Your task to perform on an android device: Clear all items from cart on ebay. Add alienware area 51 to the cart on ebay Image 0: 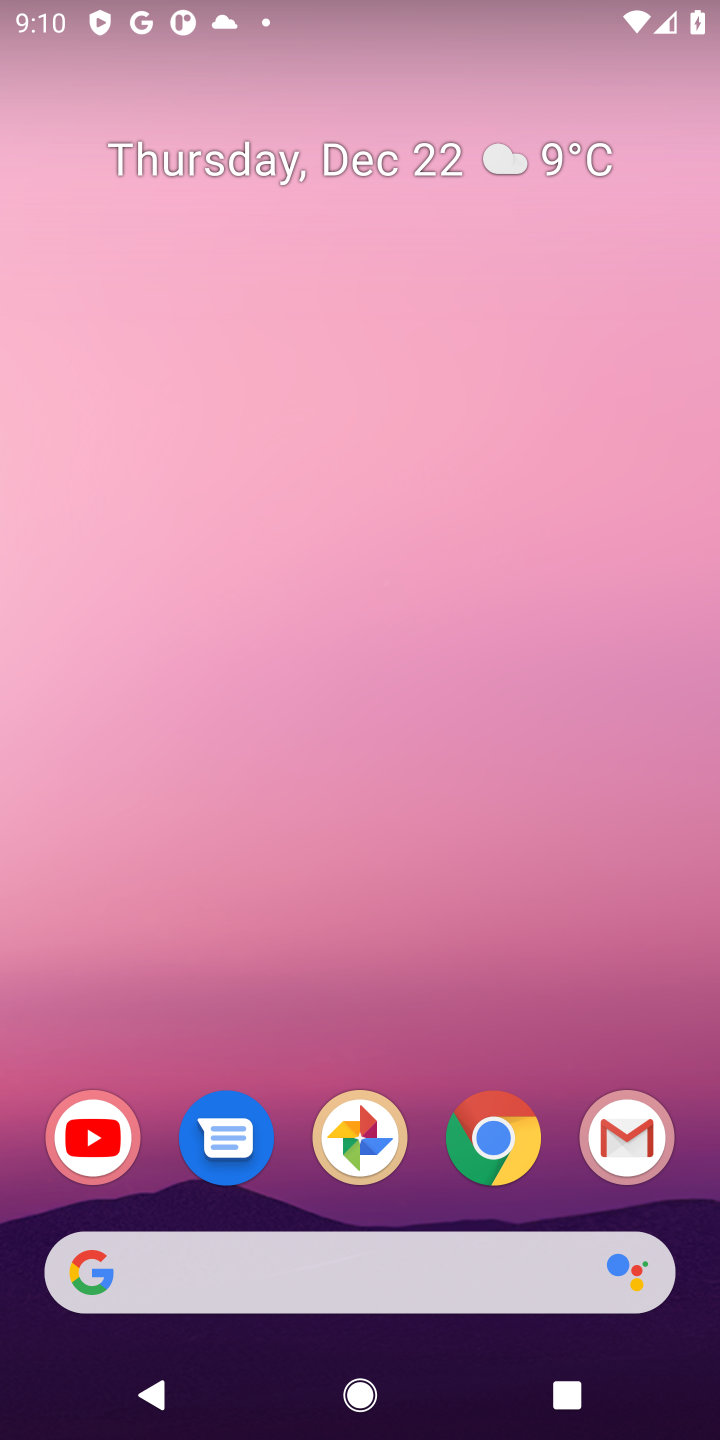
Step 0: click (499, 1150)
Your task to perform on an android device: Clear all items from cart on ebay. Add alienware area 51 to the cart on ebay Image 1: 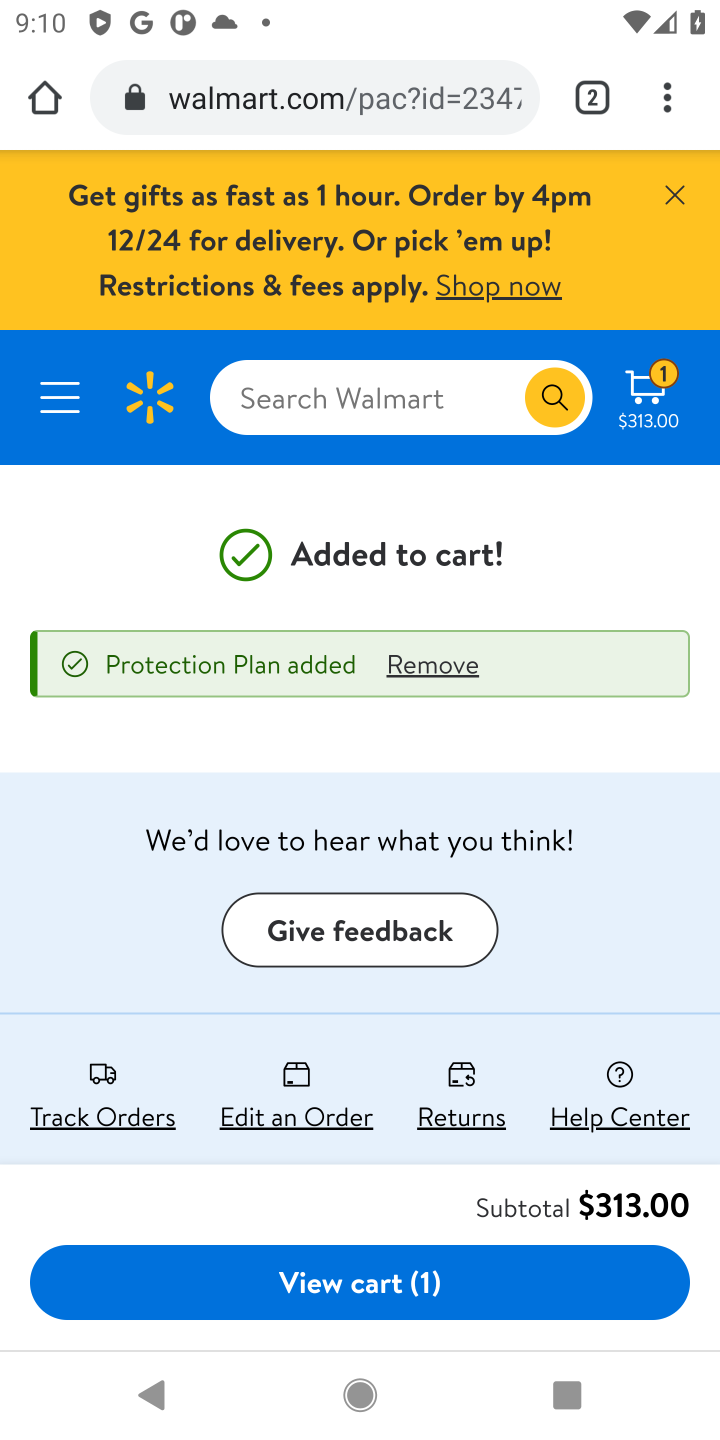
Step 1: click (247, 118)
Your task to perform on an android device: Clear all items from cart on ebay. Add alienware area 51 to the cart on ebay Image 2: 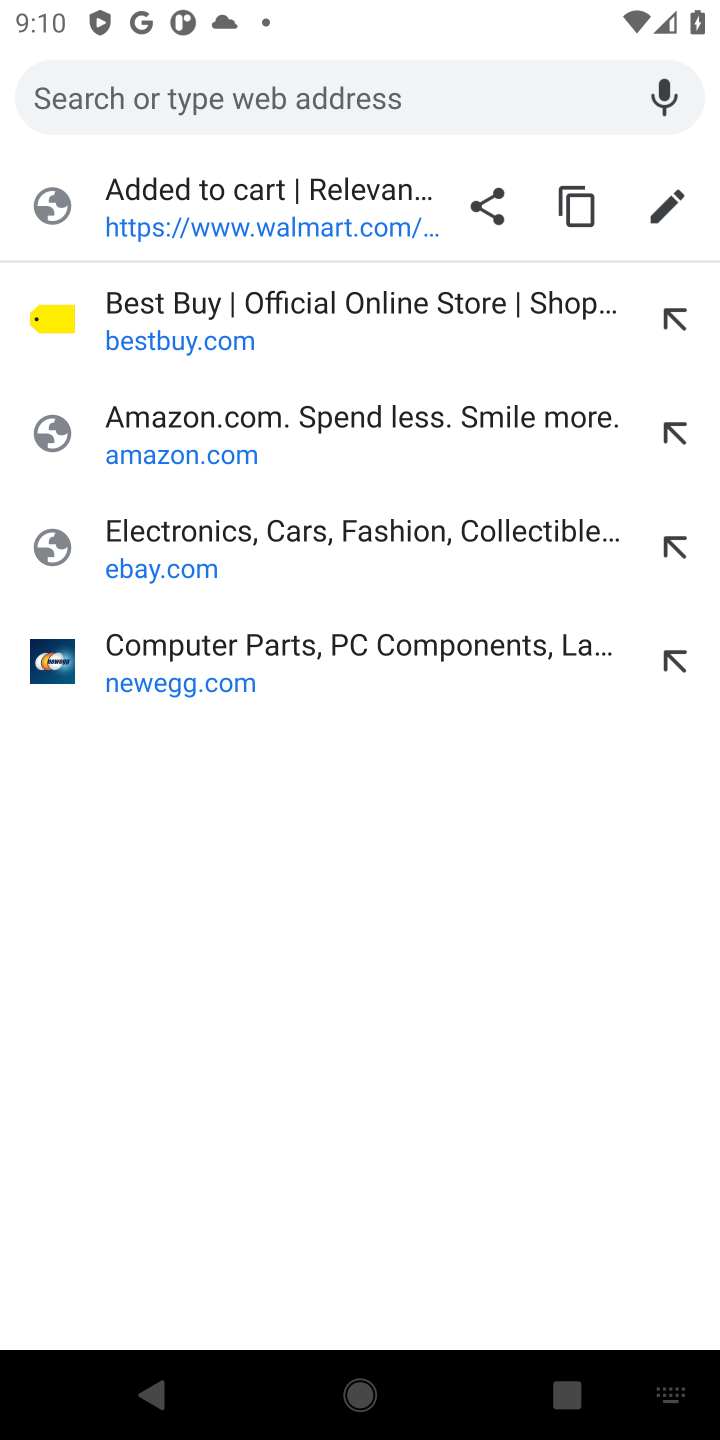
Step 2: type "ebay"
Your task to perform on an android device: Clear all items from cart on ebay. Add alienware area 51 to the cart on ebay Image 3: 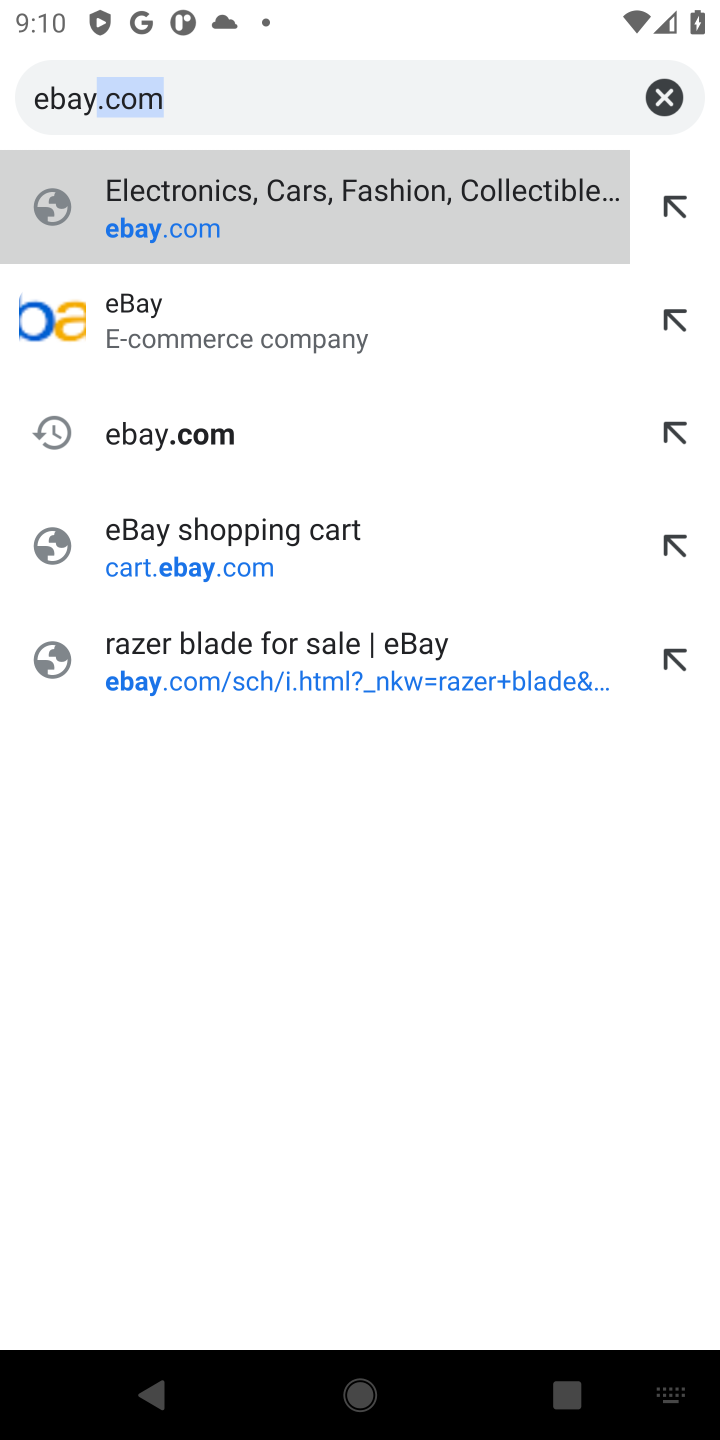
Step 3: click (293, 241)
Your task to perform on an android device: Clear all items from cart on ebay. Add alienware area 51 to the cart on ebay Image 4: 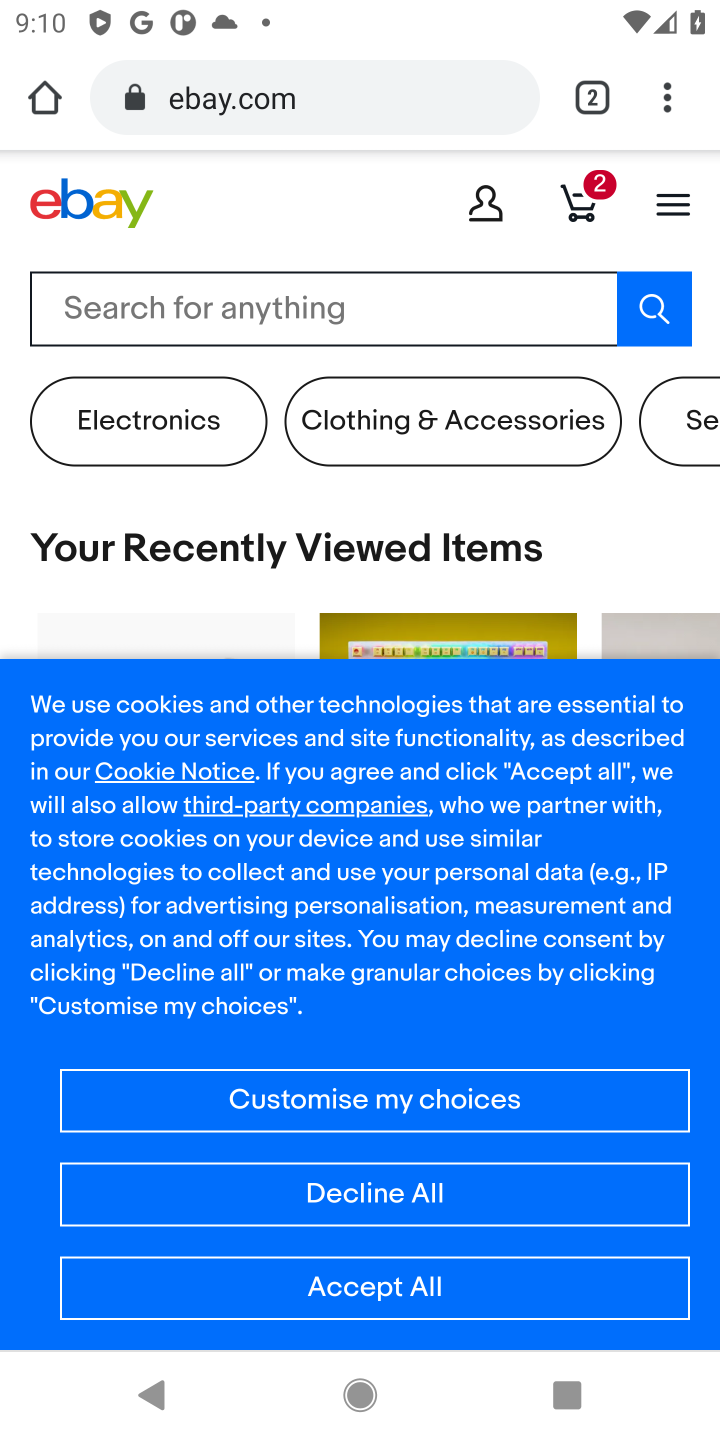
Step 4: click (406, 1312)
Your task to perform on an android device: Clear all items from cart on ebay. Add alienware area 51 to the cart on ebay Image 5: 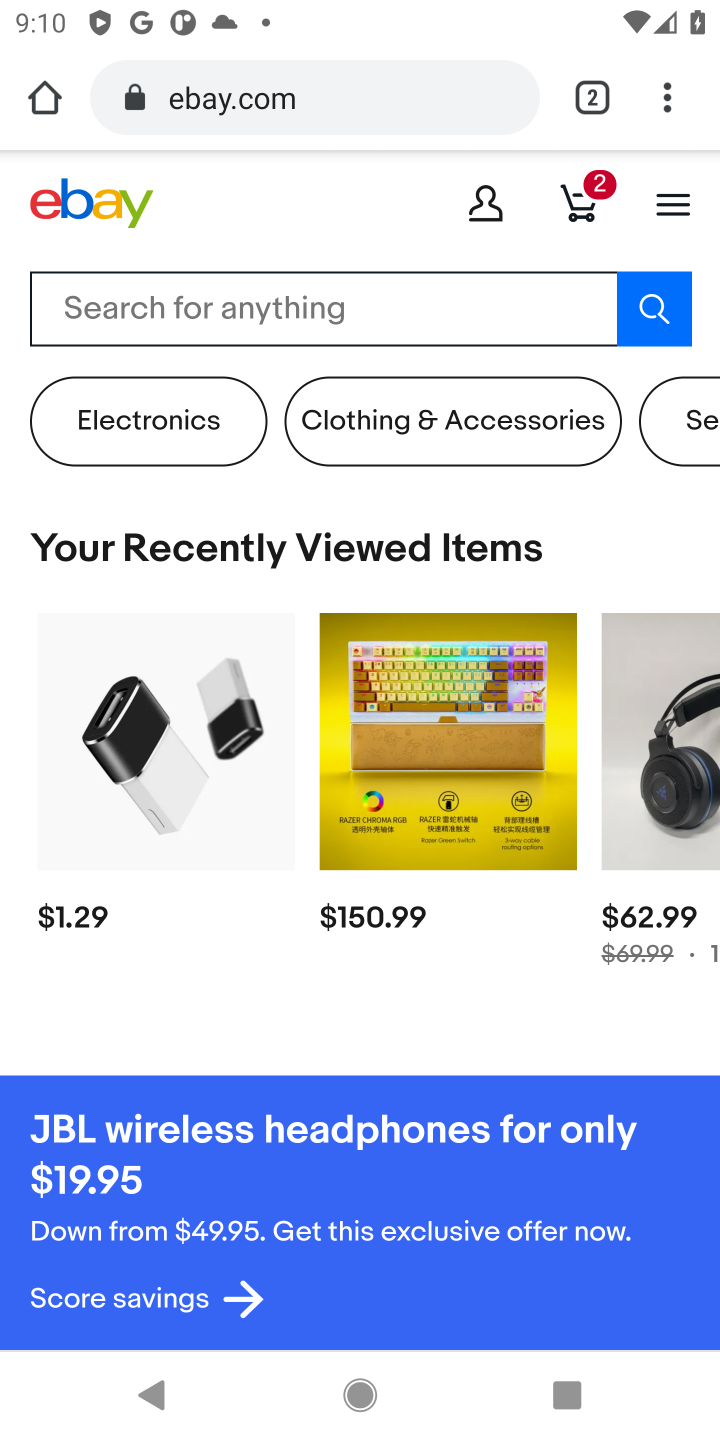
Step 5: click (292, 333)
Your task to perform on an android device: Clear all items from cart on ebay. Add alienware area 51 to the cart on ebay Image 6: 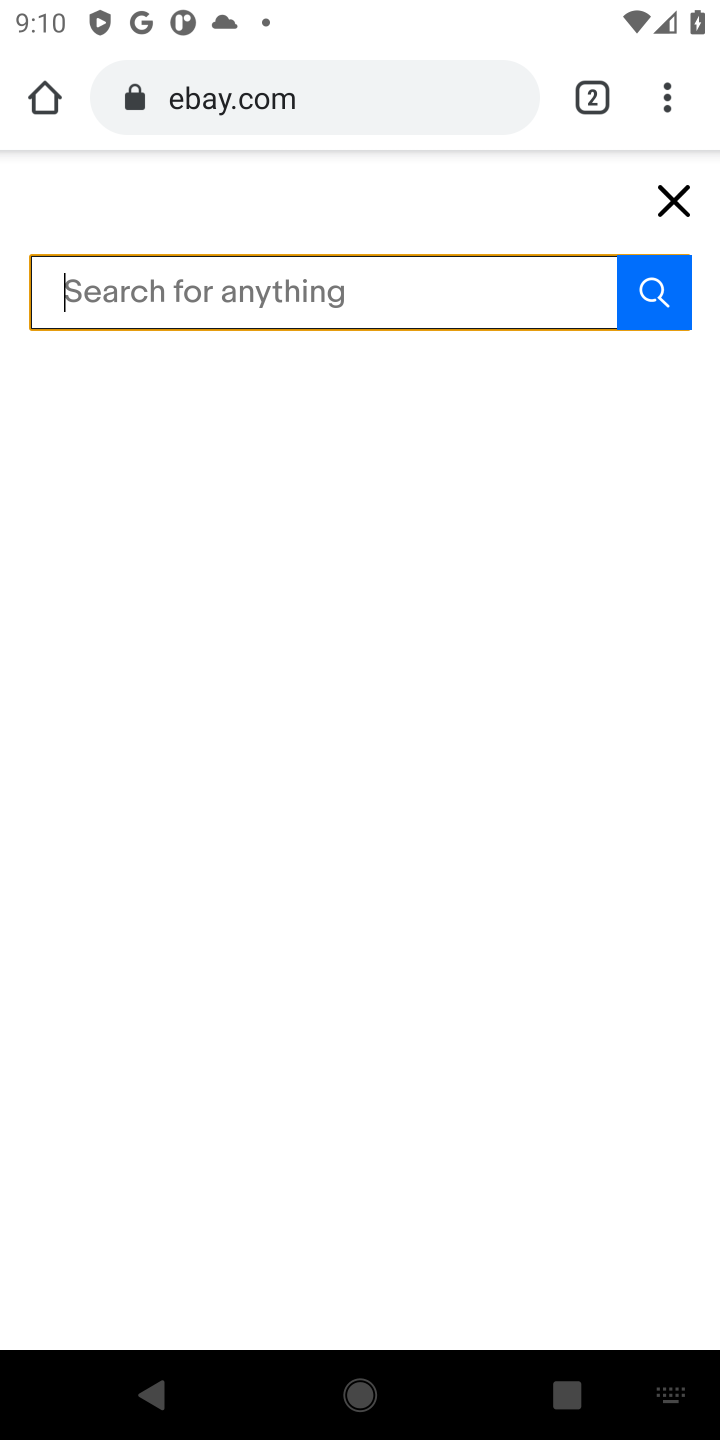
Step 6: type "alienware area 51"
Your task to perform on an android device: Clear all items from cart on ebay. Add alienware area 51 to the cart on ebay Image 7: 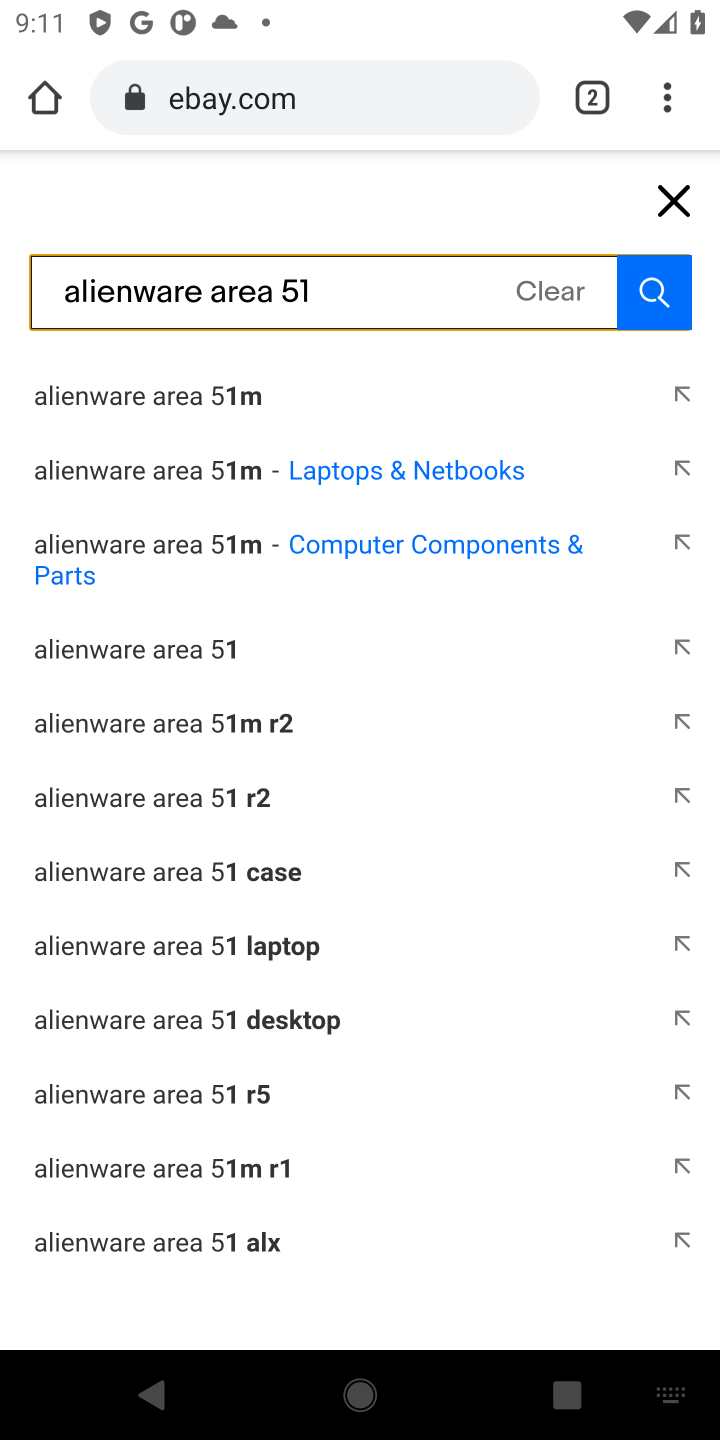
Step 7: click (651, 291)
Your task to perform on an android device: Clear all items from cart on ebay. Add alienware area 51 to the cart on ebay Image 8: 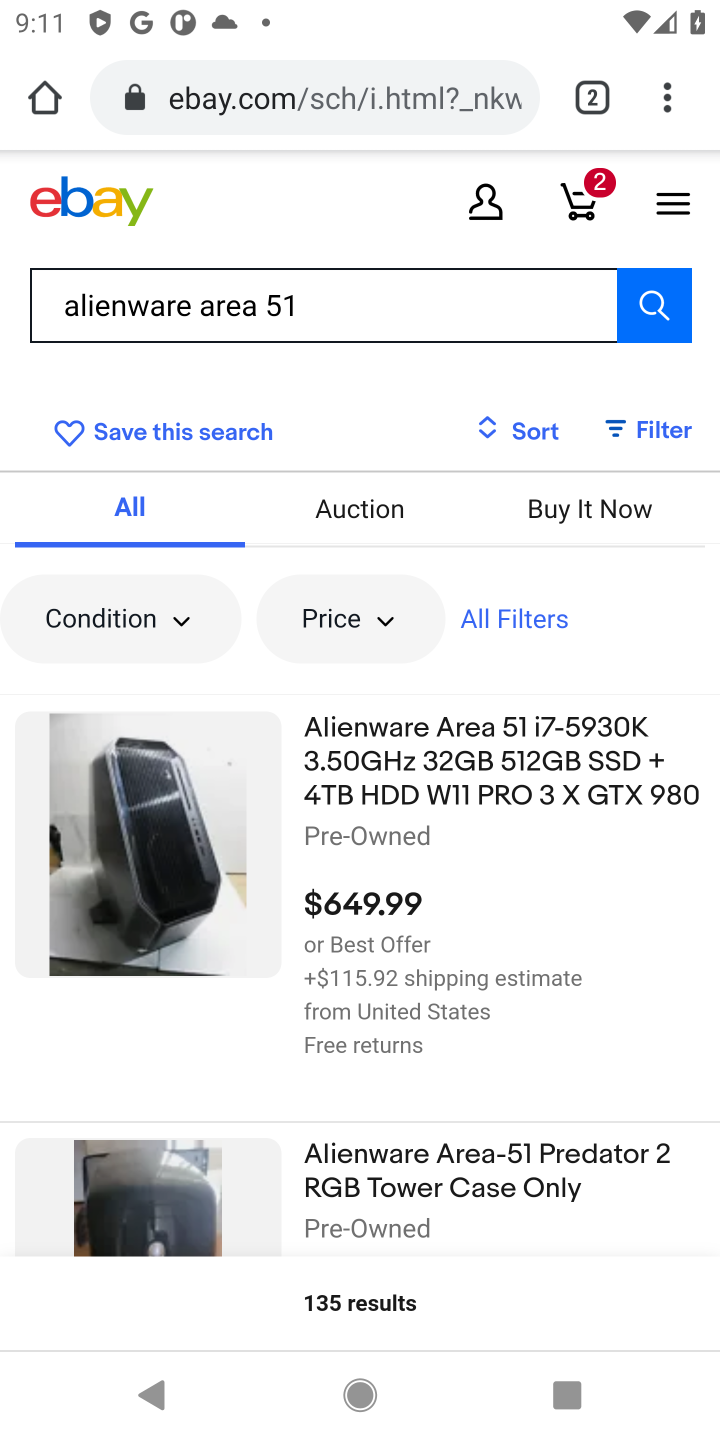
Step 8: click (447, 776)
Your task to perform on an android device: Clear all items from cart on ebay. Add alienware area 51 to the cart on ebay Image 9: 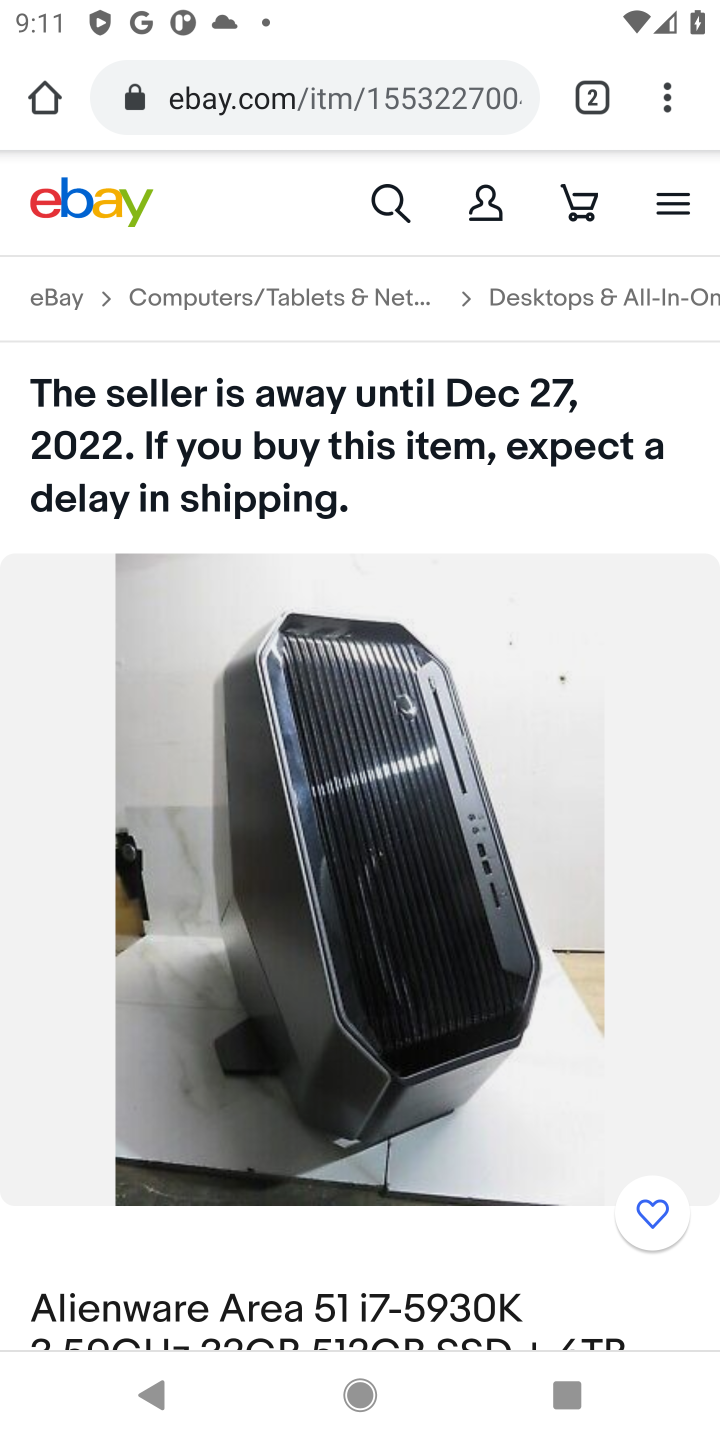
Step 9: drag from (564, 1112) to (582, 299)
Your task to perform on an android device: Clear all items from cart on ebay. Add alienware area 51 to the cart on ebay Image 10: 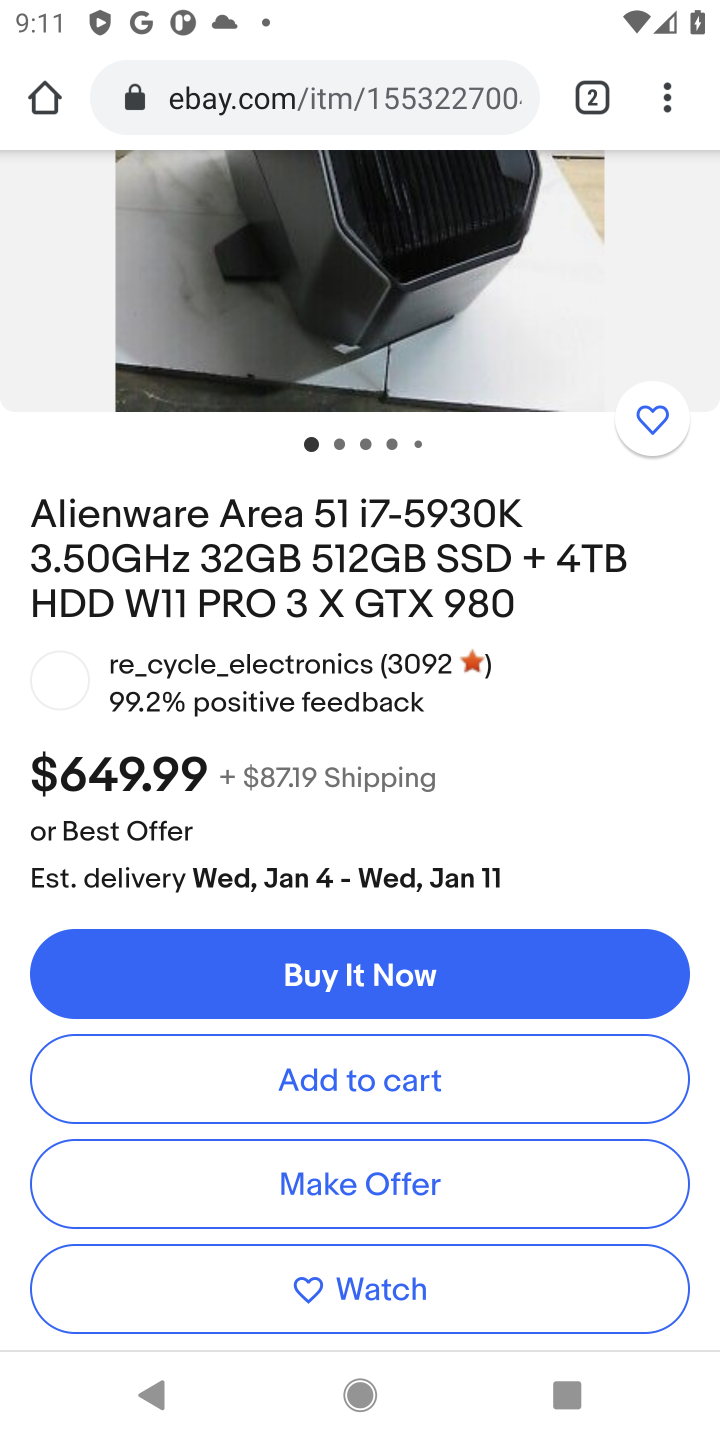
Step 10: drag from (591, 588) to (579, 1436)
Your task to perform on an android device: Clear all items from cart on ebay. Add alienware area 51 to the cart on ebay Image 11: 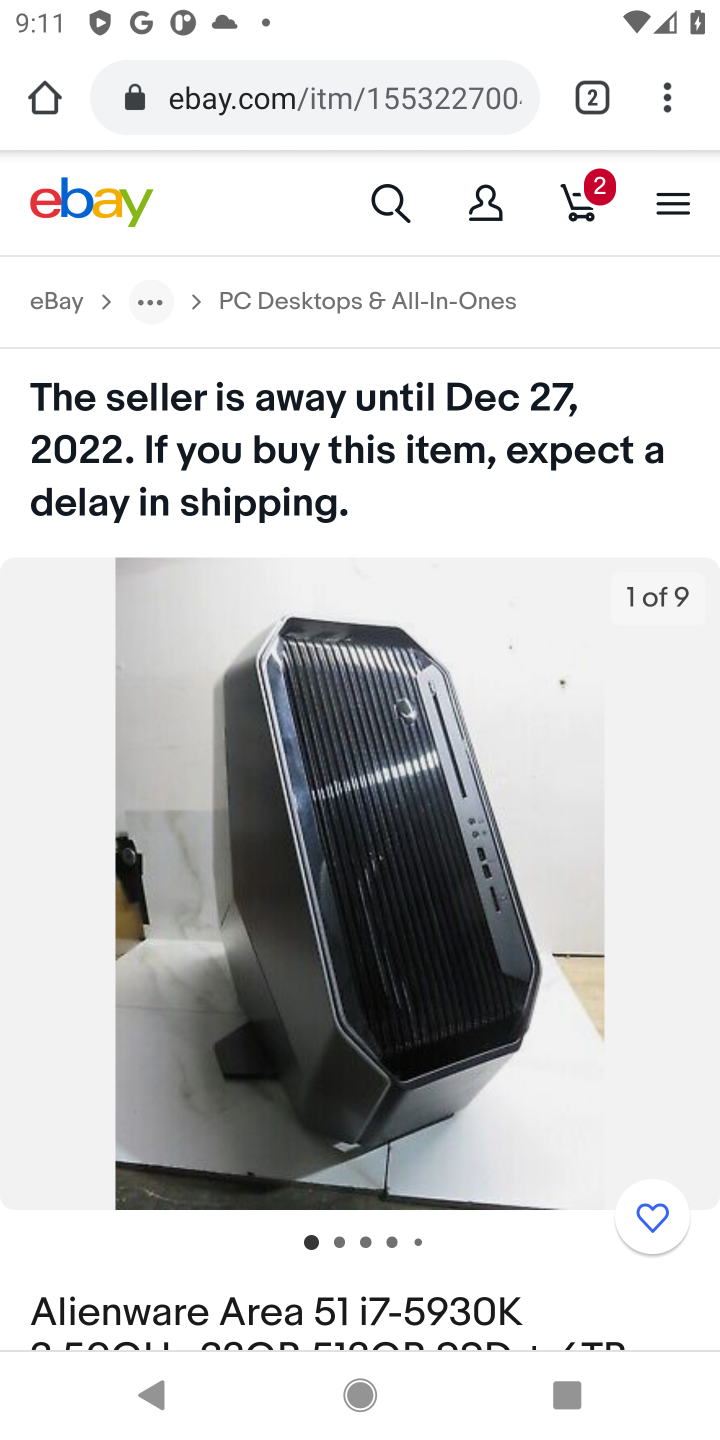
Step 11: click (580, 209)
Your task to perform on an android device: Clear all items from cart on ebay. Add alienware area 51 to the cart on ebay Image 12: 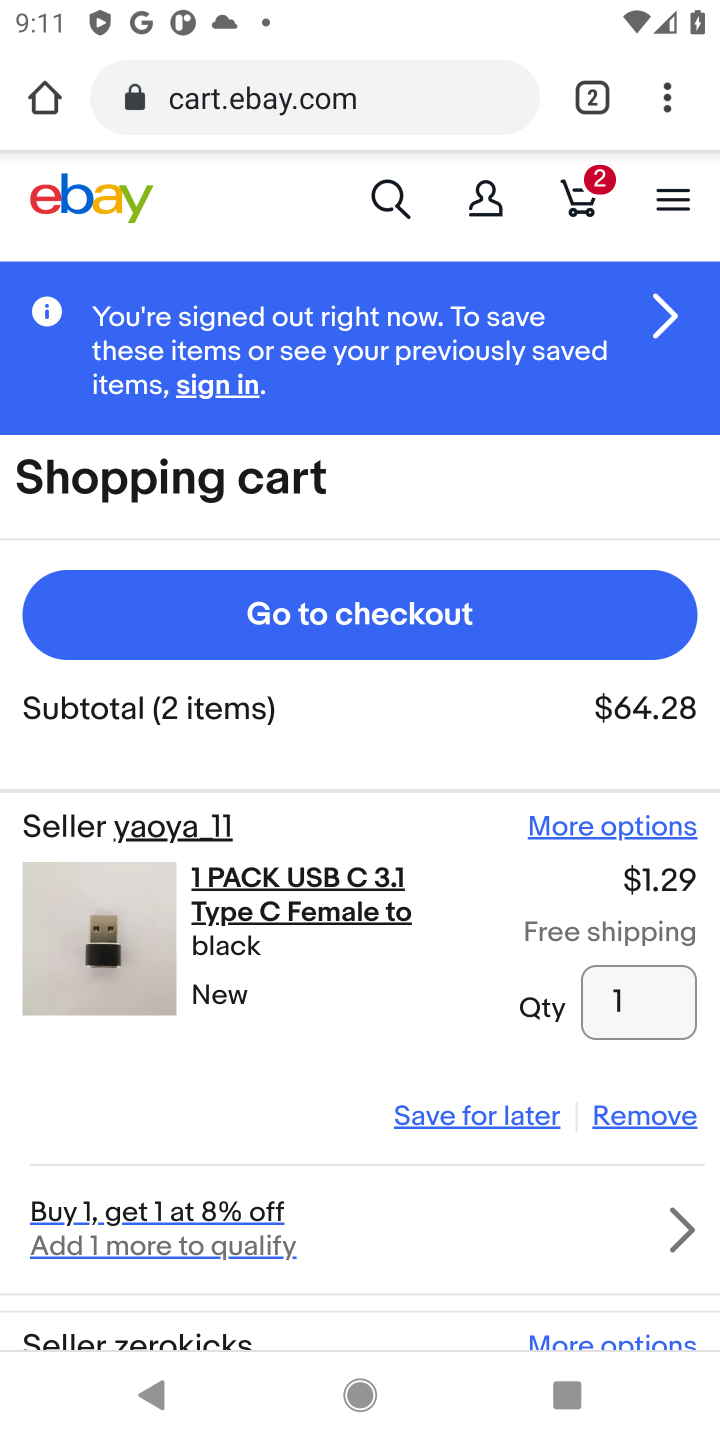
Step 12: click (636, 1118)
Your task to perform on an android device: Clear all items from cart on ebay. Add alienware area 51 to the cart on ebay Image 13: 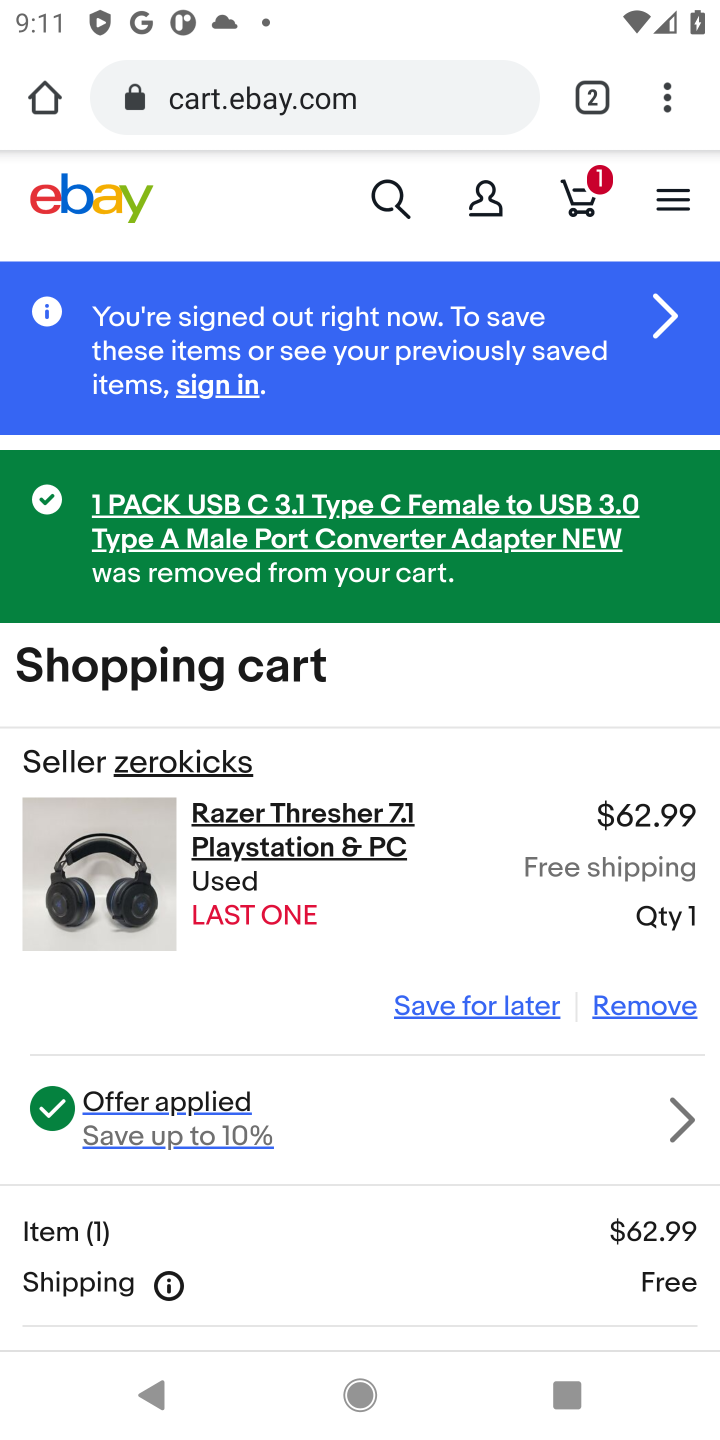
Step 13: click (655, 1012)
Your task to perform on an android device: Clear all items from cart on ebay. Add alienware area 51 to the cart on ebay Image 14: 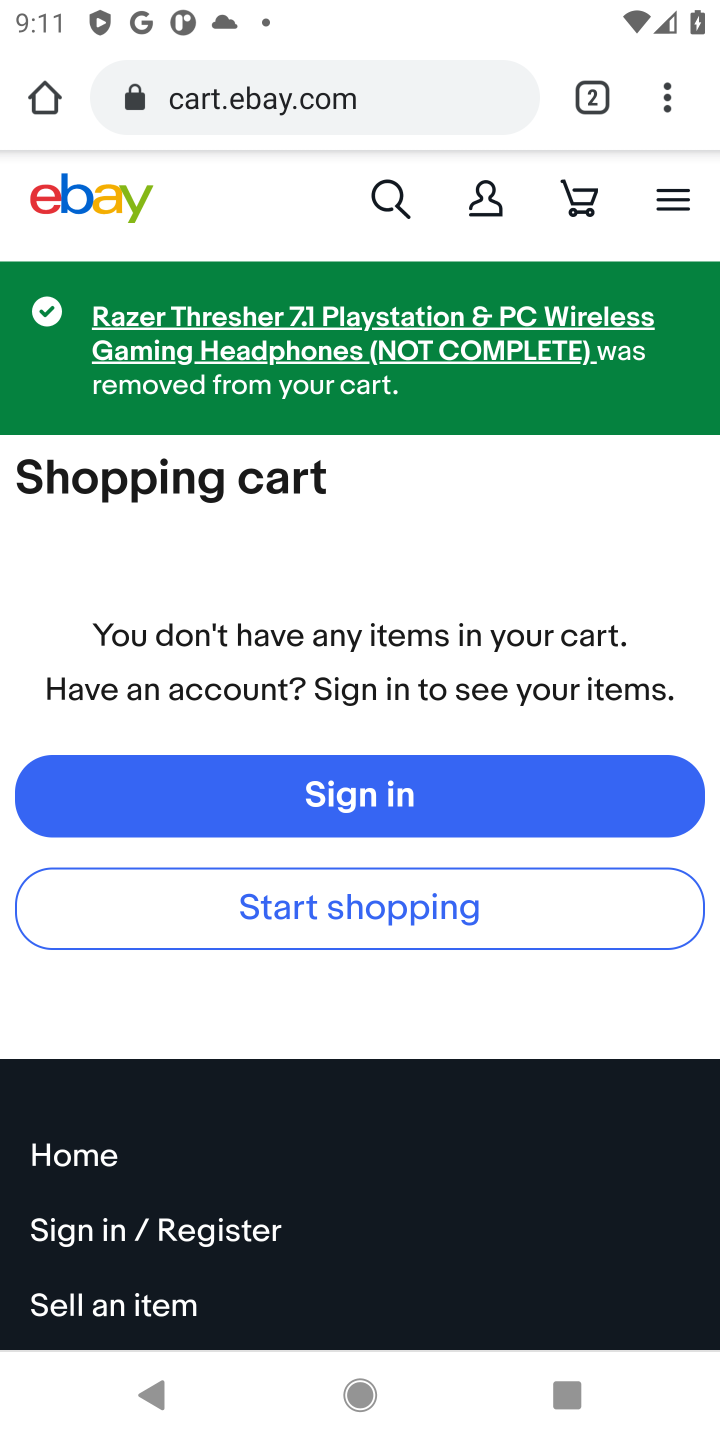
Step 14: press back button
Your task to perform on an android device: Clear all items from cart on ebay. Add alienware area 51 to the cart on ebay Image 15: 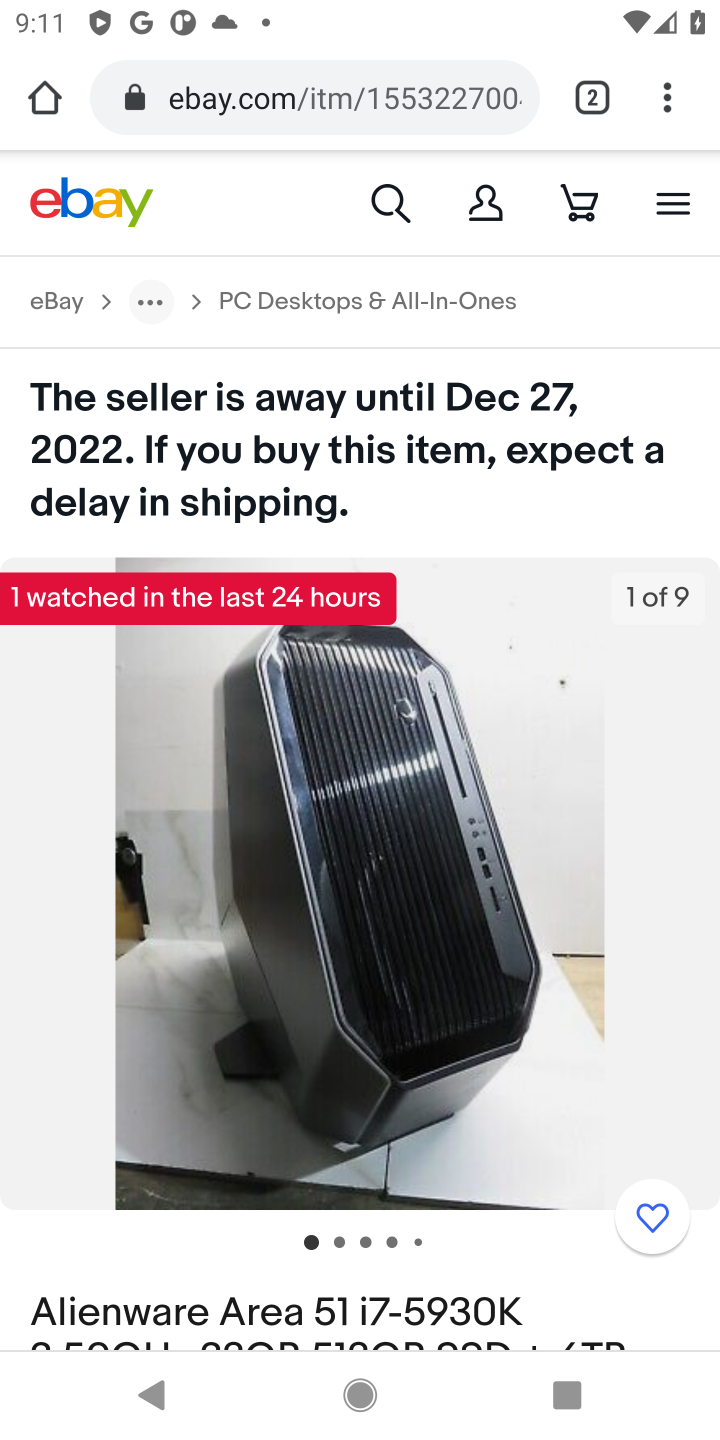
Step 15: drag from (600, 1297) to (638, 443)
Your task to perform on an android device: Clear all items from cart on ebay. Add alienware area 51 to the cart on ebay Image 16: 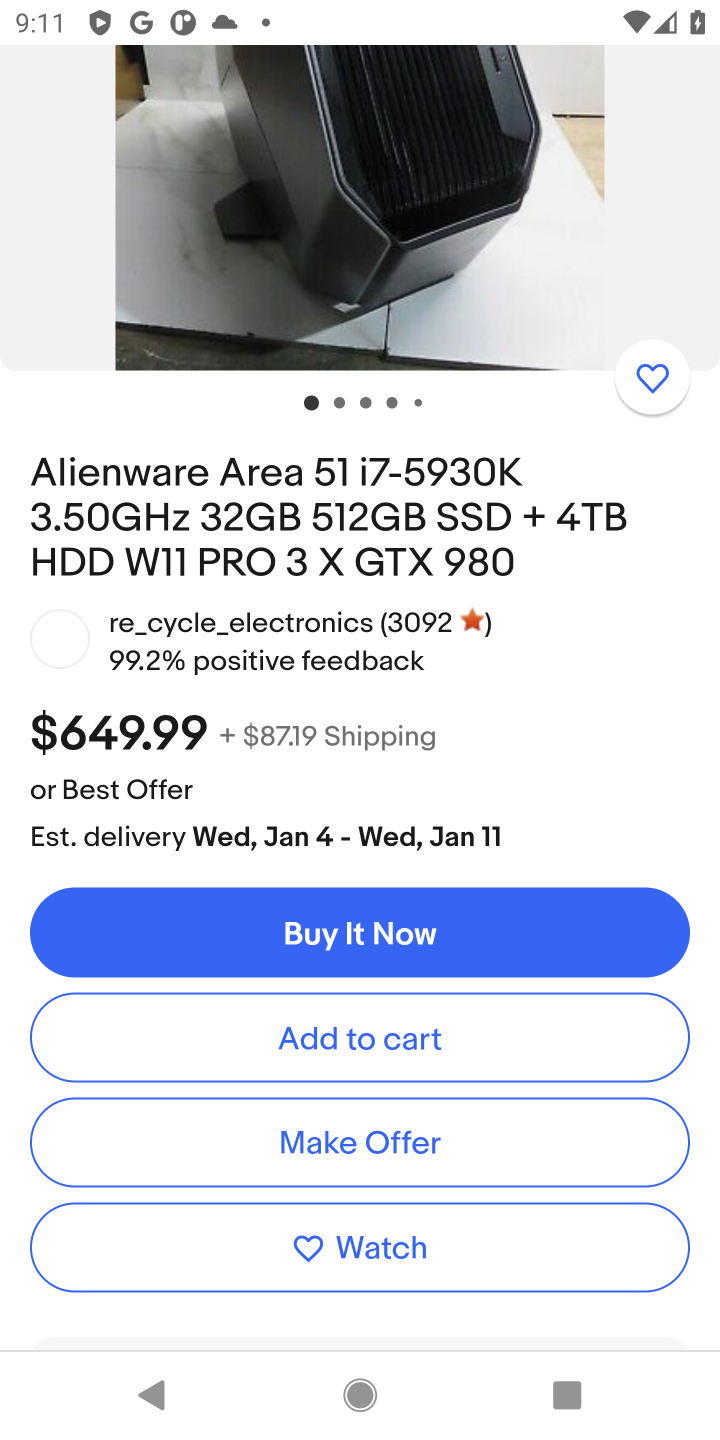
Step 16: click (352, 1041)
Your task to perform on an android device: Clear all items from cart on ebay. Add alienware area 51 to the cart on ebay Image 17: 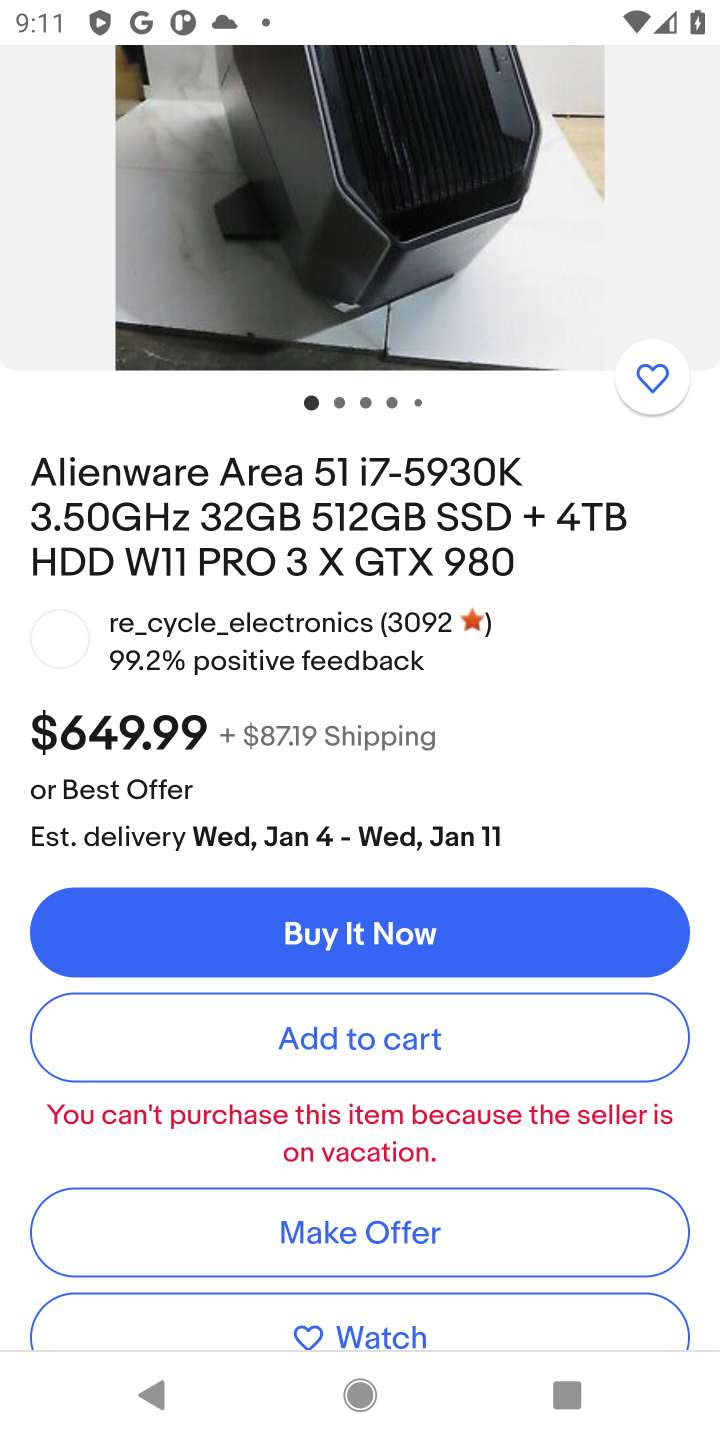
Step 17: task complete